Your task to perform on an android device: open a new tab in the chrome app Image 0: 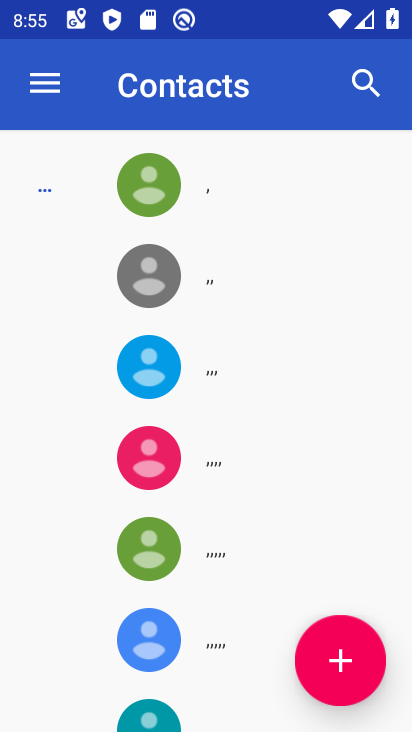
Step 0: press home button
Your task to perform on an android device: open a new tab in the chrome app Image 1: 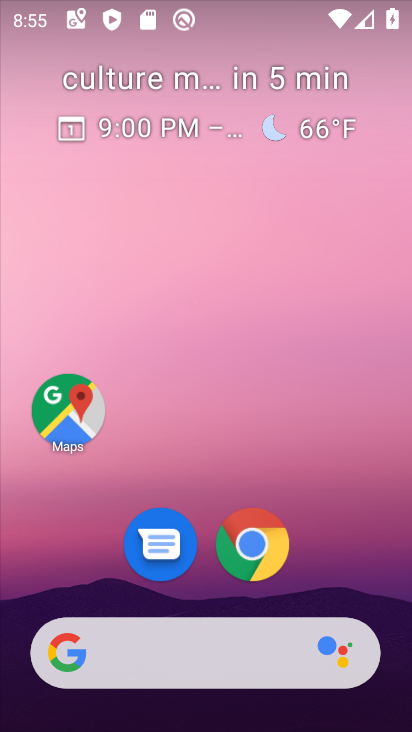
Step 1: drag from (196, 603) to (206, 60)
Your task to perform on an android device: open a new tab in the chrome app Image 2: 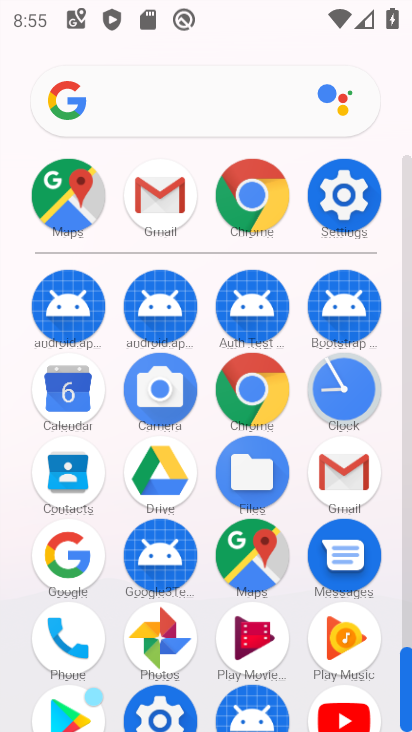
Step 2: click (247, 202)
Your task to perform on an android device: open a new tab in the chrome app Image 3: 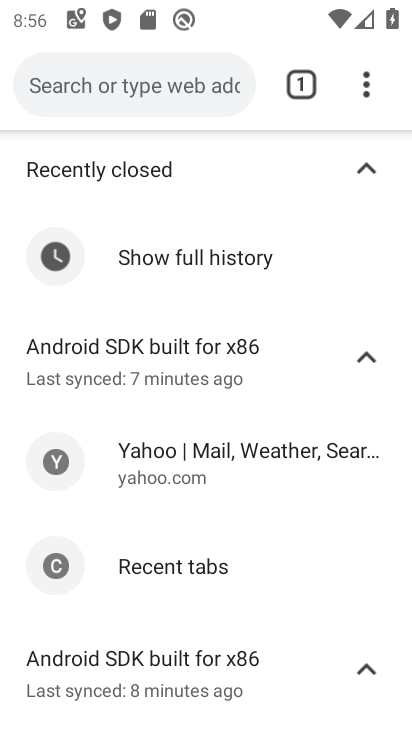
Step 3: click (363, 82)
Your task to perform on an android device: open a new tab in the chrome app Image 4: 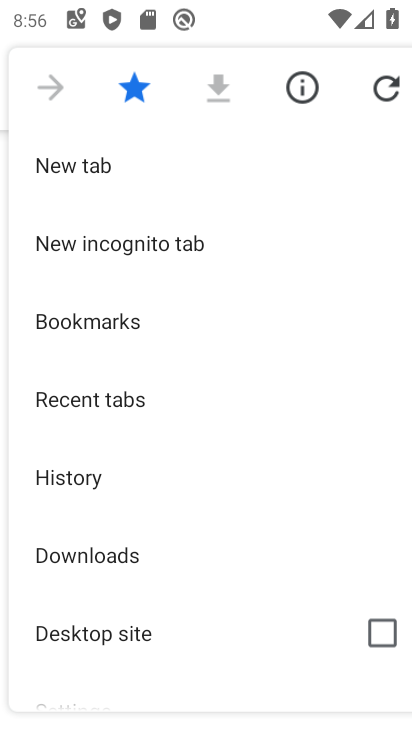
Step 4: press back button
Your task to perform on an android device: open a new tab in the chrome app Image 5: 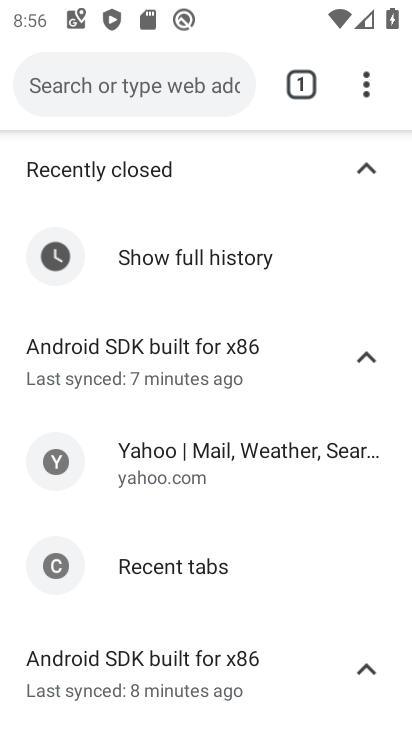
Step 5: press back button
Your task to perform on an android device: open a new tab in the chrome app Image 6: 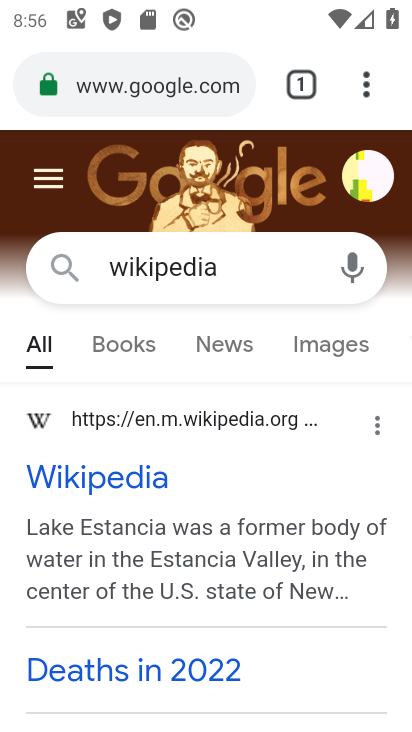
Step 6: click (371, 88)
Your task to perform on an android device: open a new tab in the chrome app Image 7: 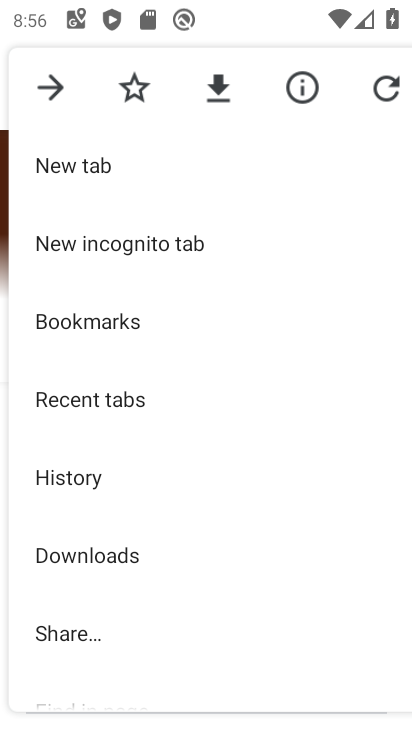
Step 7: click (118, 161)
Your task to perform on an android device: open a new tab in the chrome app Image 8: 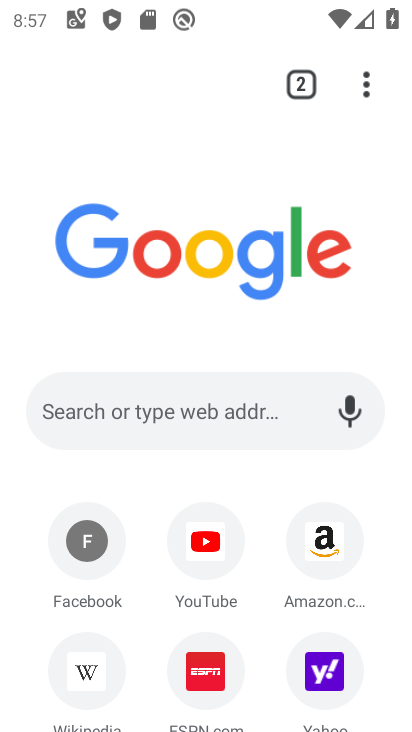
Step 8: task complete